Your task to perform on an android device: move a message to another label in the gmail app Image 0: 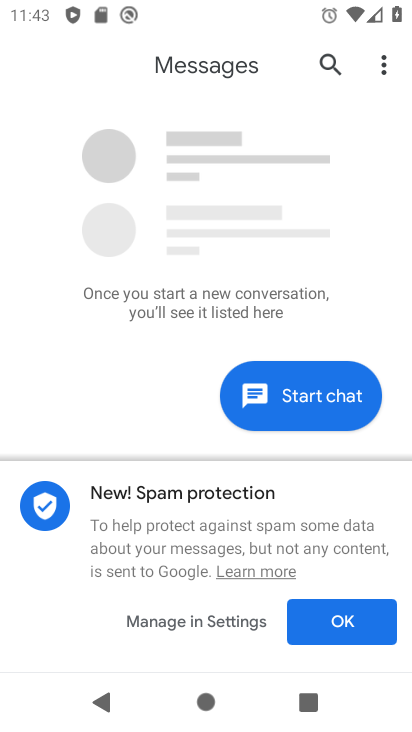
Step 0: press home button
Your task to perform on an android device: move a message to another label in the gmail app Image 1: 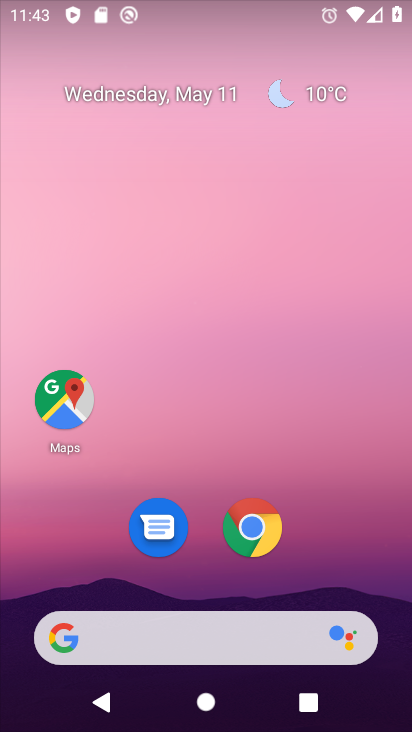
Step 1: drag from (200, 564) to (181, 0)
Your task to perform on an android device: move a message to another label in the gmail app Image 2: 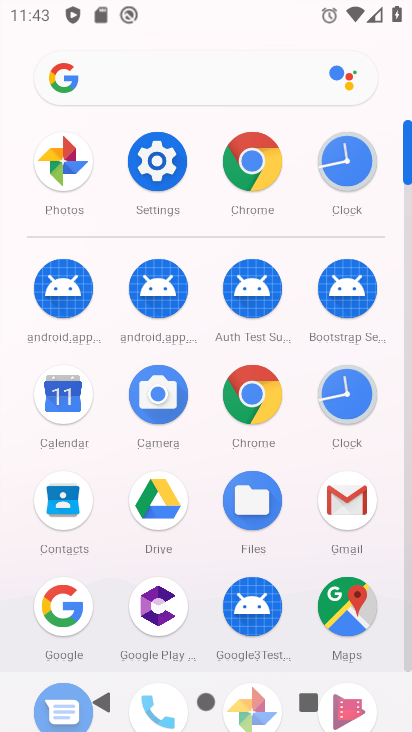
Step 2: click (357, 504)
Your task to perform on an android device: move a message to another label in the gmail app Image 3: 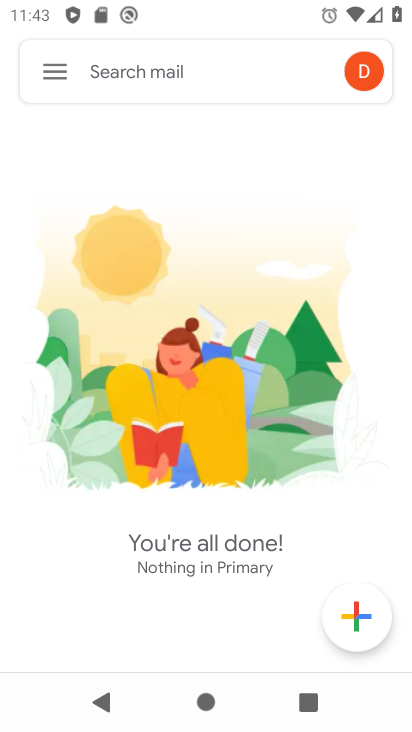
Step 3: click (51, 66)
Your task to perform on an android device: move a message to another label in the gmail app Image 4: 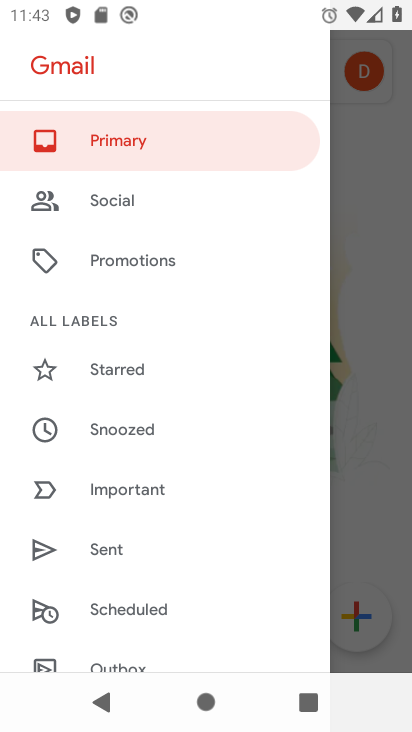
Step 4: drag from (137, 581) to (202, 198)
Your task to perform on an android device: move a message to another label in the gmail app Image 5: 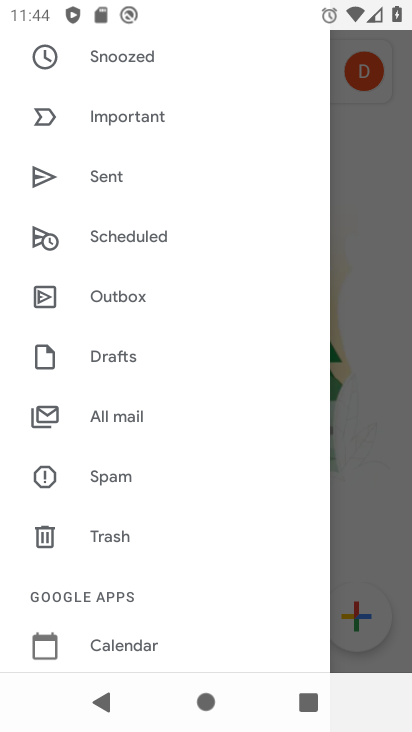
Step 5: click (114, 403)
Your task to perform on an android device: move a message to another label in the gmail app Image 6: 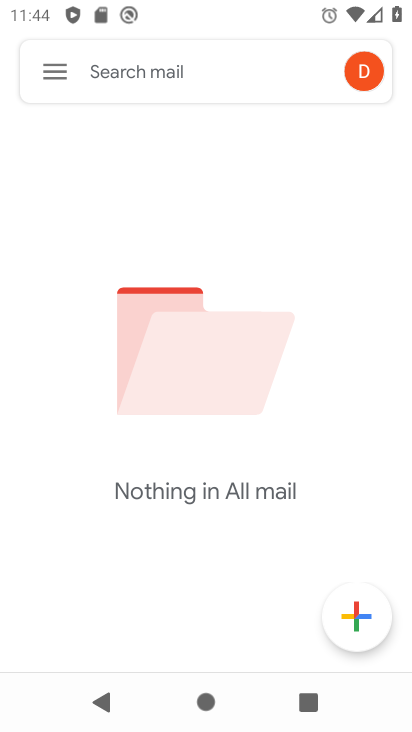
Step 6: task complete